Your task to perform on an android device: change notifications settings Image 0: 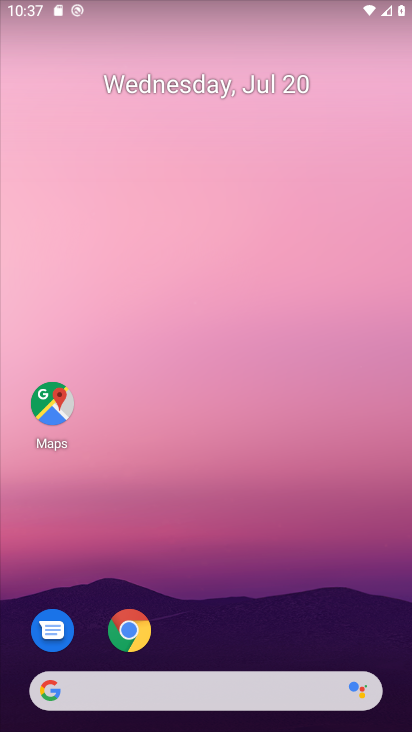
Step 0: drag from (257, 690) to (257, 272)
Your task to perform on an android device: change notifications settings Image 1: 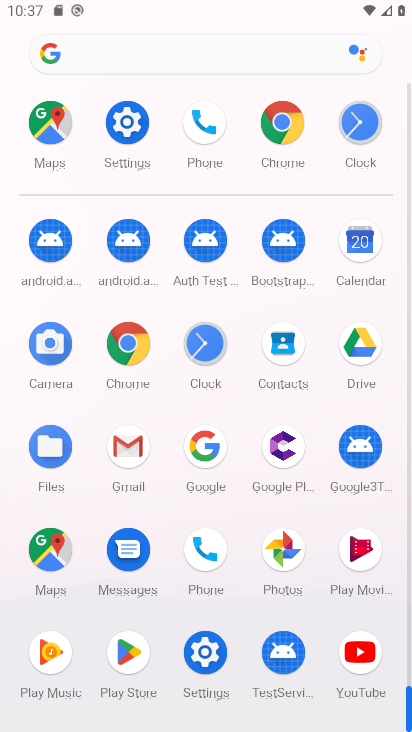
Step 1: click (122, 121)
Your task to perform on an android device: change notifications settings Image 2: 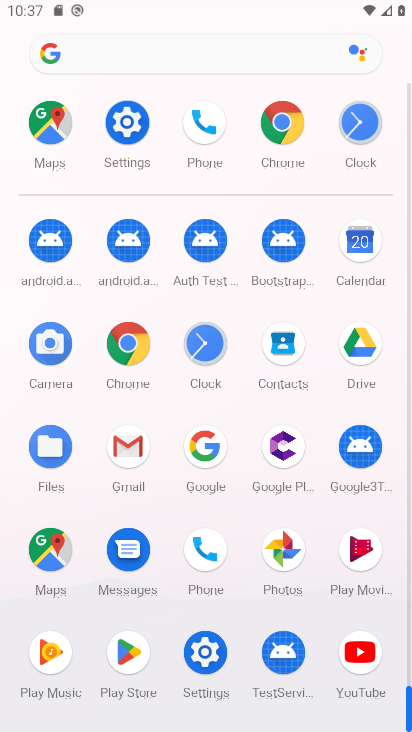
Step 2: click (125, 121)
Your task to perform on an android device: change notifications settings Image 3: 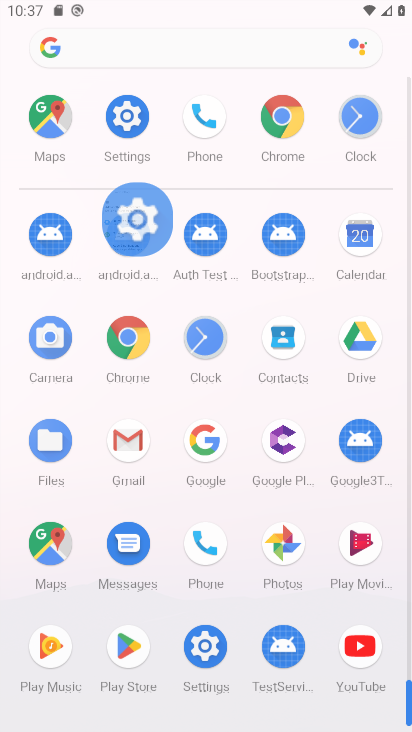
Step 3: click (126, 121)
Your task to perform on an android device: change notifications settings Image 4: 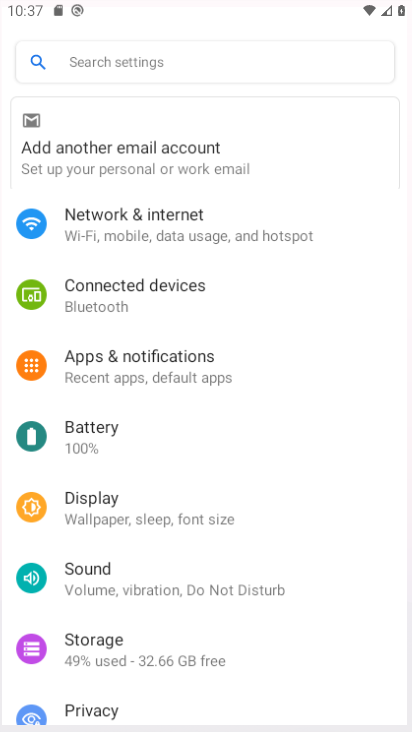
Step 4: click (126, 121)
Your task to perform on an android device: change notifications settings Image 5: 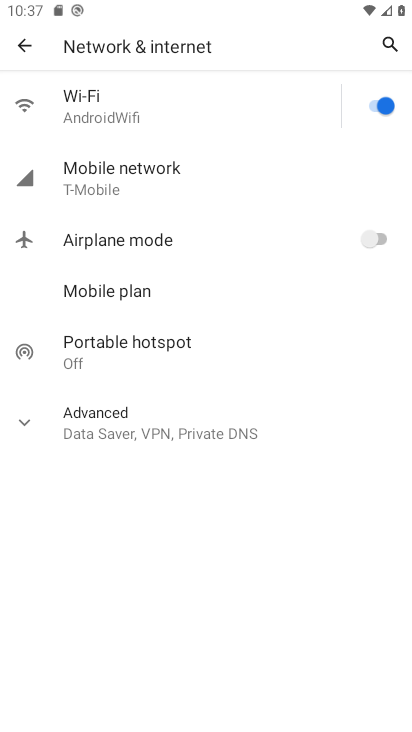
Step 5: click (19, 45)
Your task to perform on an android device: change notifications settings Image 6: 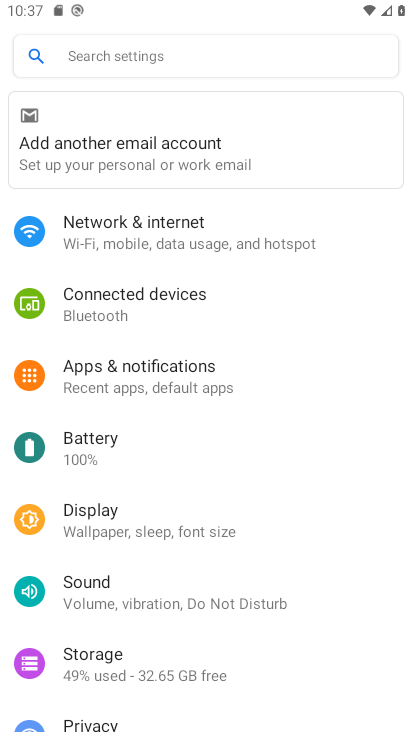
Step 6: click (145, 370)
Your task to perform on an android device: change notifications settings Image 7: 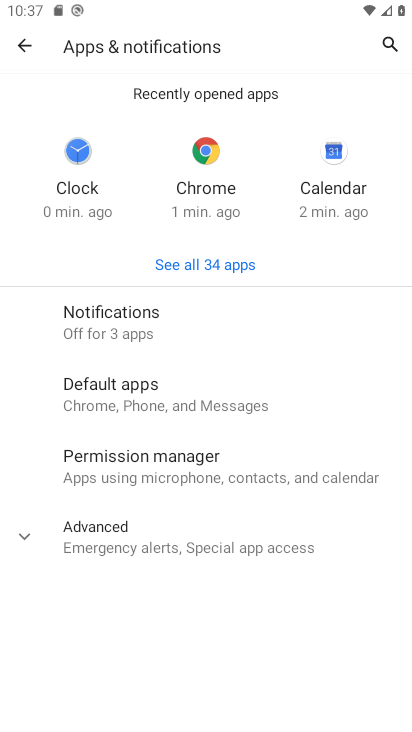
Step 7: click (107, 331)
Your task to perform on an android device: change notifications settings Image 8: 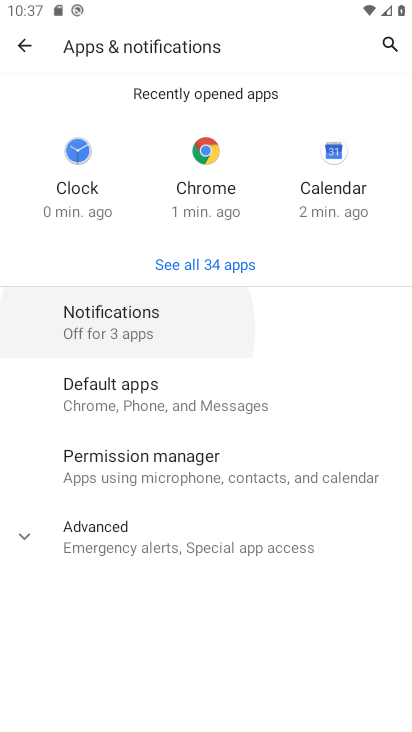
Step 8: click (107, 331)
Your task to perform on an android device: change notifications settings Image 9: 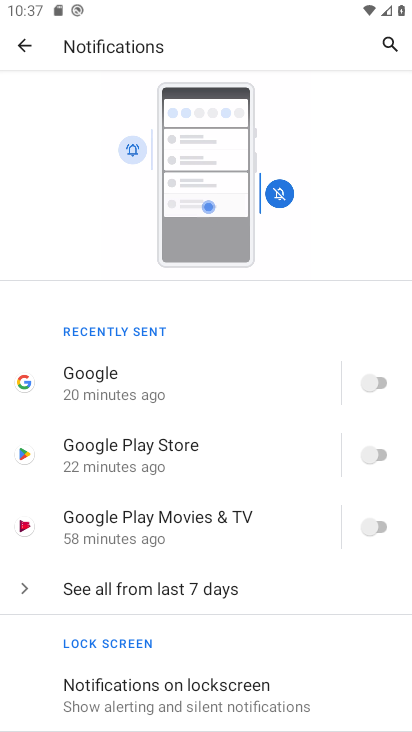
Step 9: click (377, 378)
Your task to perform on an android device: change notifications settings Image 10: 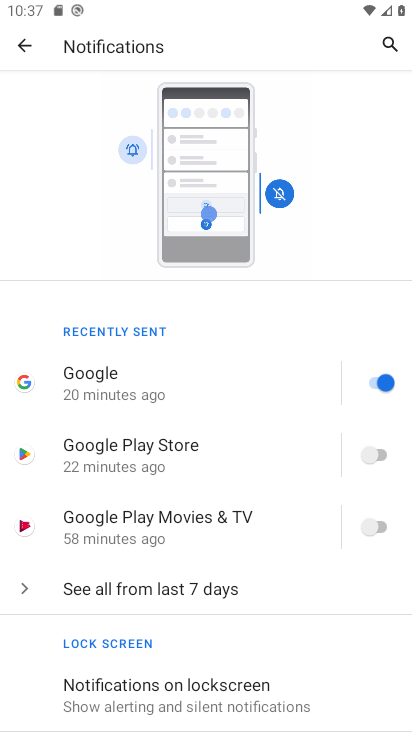
Step 10: click (378, 458)
Your task to perform on an android device: change notifications settings Image 11: 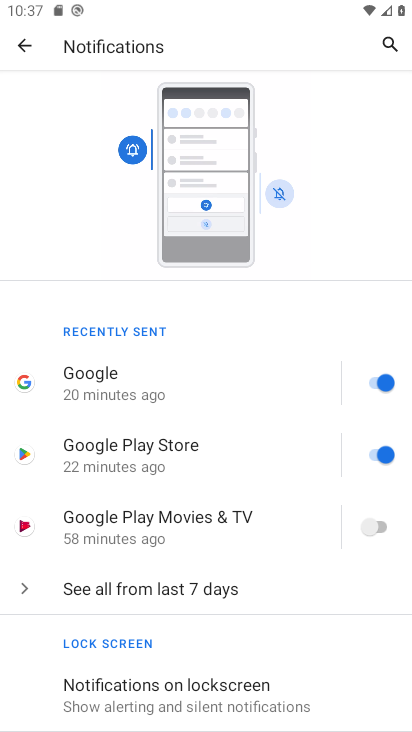
Step 11: click (370, 526)
Your task to perform on an android device: change notifications settings Image 12: 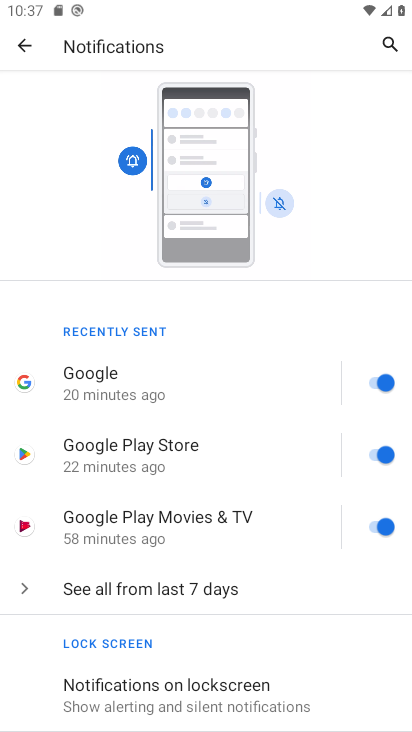
Step 12: task complete